Your task to perform on an android device: Go to notification settings Image 0: 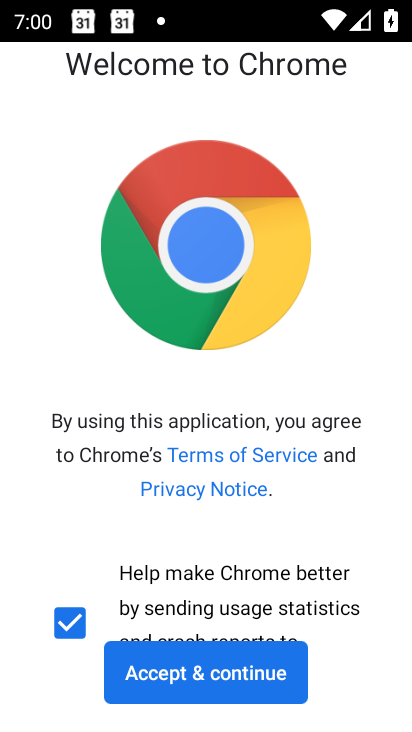
Step 0: press home button
Your task to perform on an android device: Go to notification settings Image 1: 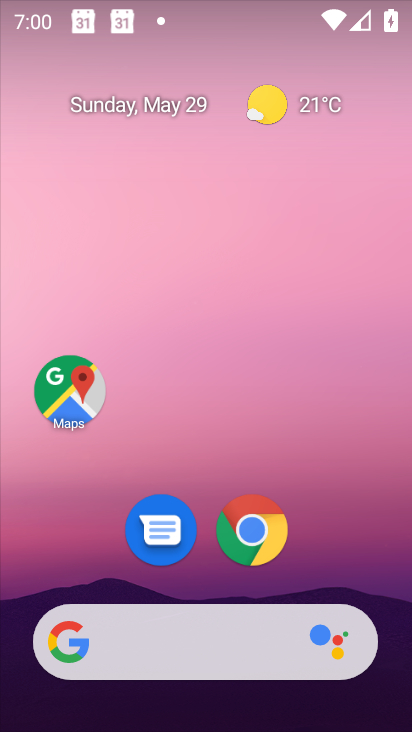
Step 1: drag from (235, 499) to (324, 104)
Your task to perform on an android device: Go to notification settings Image 2: 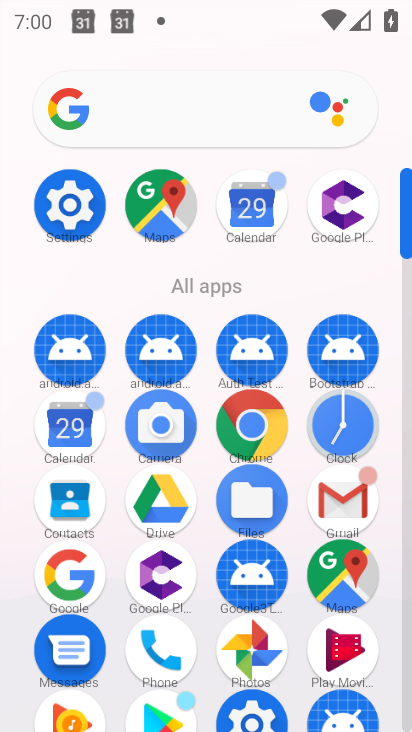
Step 2: click (52, 188)
Your task to perform on an android device: Go to notification settings Image 3: 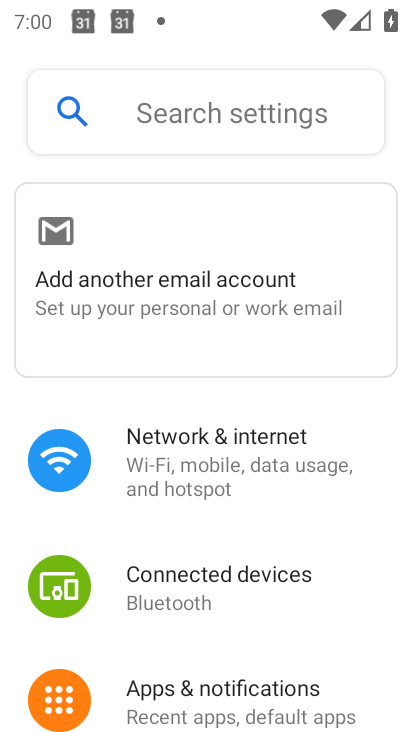
Step 3: click (211, 114)
Your task to perform on an android device: Go to notification settings Image 4: 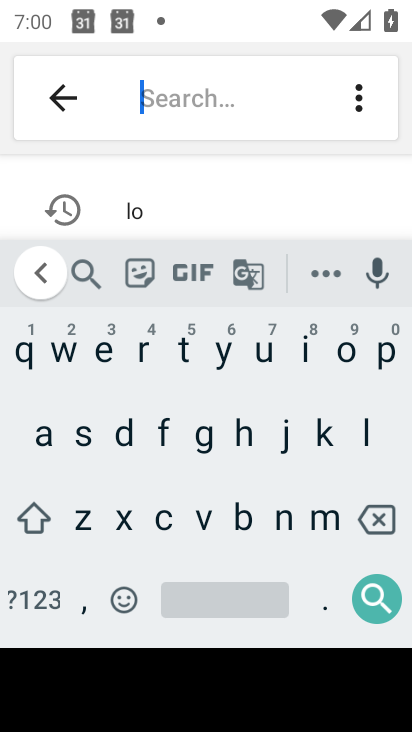
Step 4: click (278, 519)
Your task to perform on an android device: Go to notification settings Image 5: 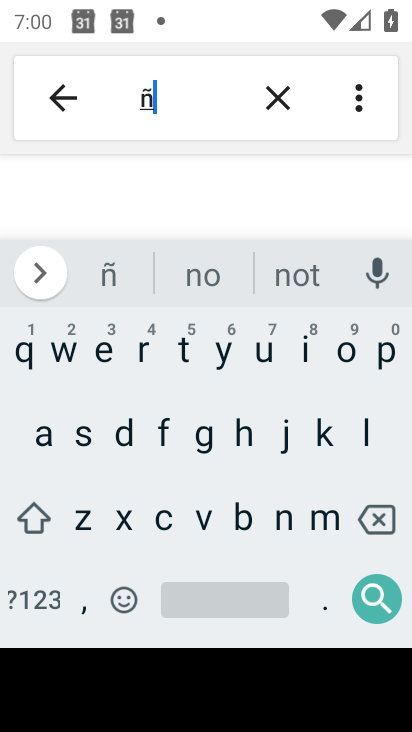
Step 5: click (389, 514)
Your task to perform on an android device: Go to notification settings Image 6: 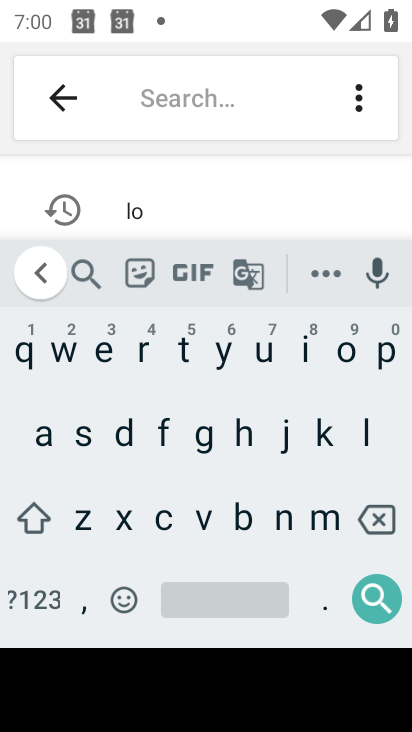
Step 6: click (281, 526)
Your task to perform on an android device: Go to notification settings Image 7: 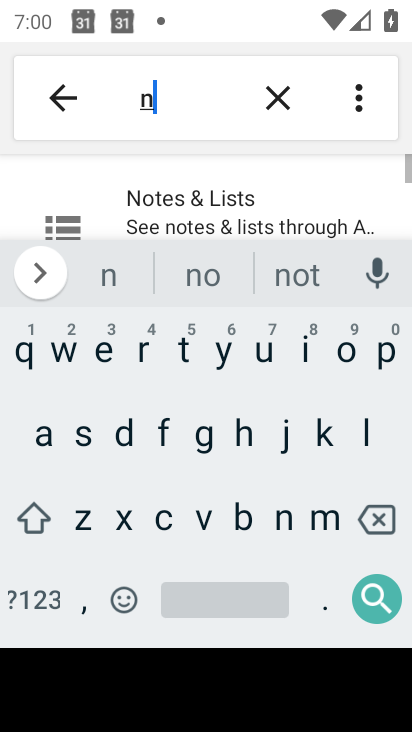
Step 7: click (341, 350)
Your task to perform on an android device: Go to notification settings Image 8: 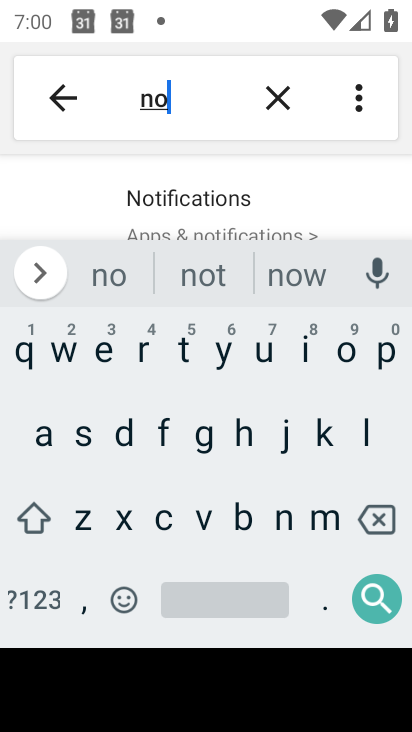
Step 8: click (199, 190)
Your task to perform on an android device: Go to notification settings Image 9: 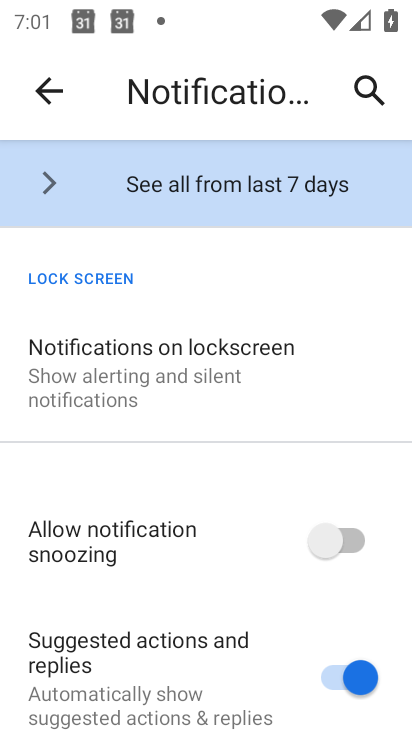
Step 9: click (142, 314)
Your task to perform on an android device: Go to notification settings Image 10: 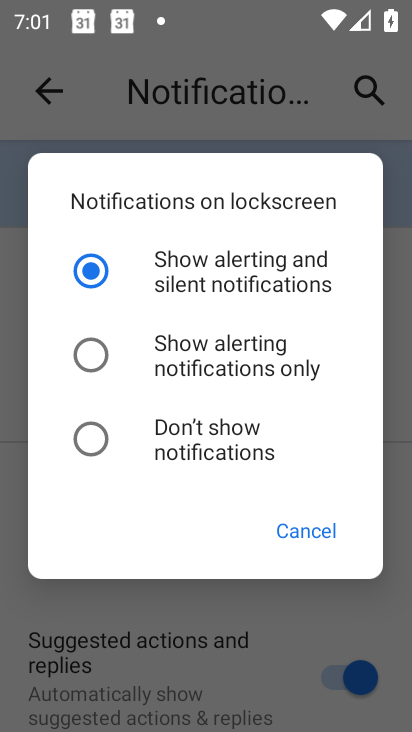
Step 10: task complete